Your task to perform on an android device: Go to sound settings Image 0: 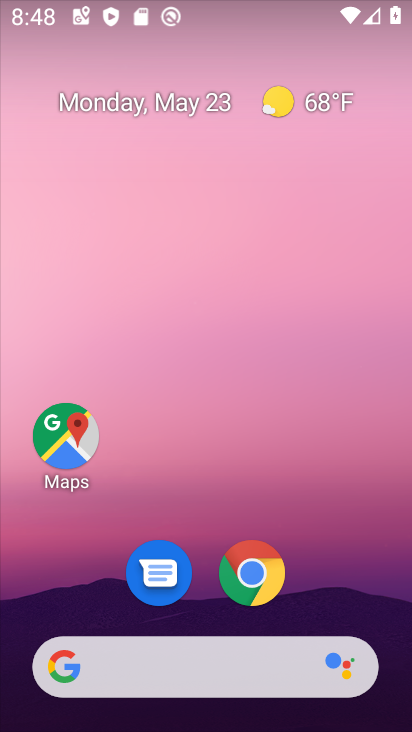
Step 0: drag from (281, 719) to (302, 358)
Your task to perform on an android device: Go to sound settings Image 1: 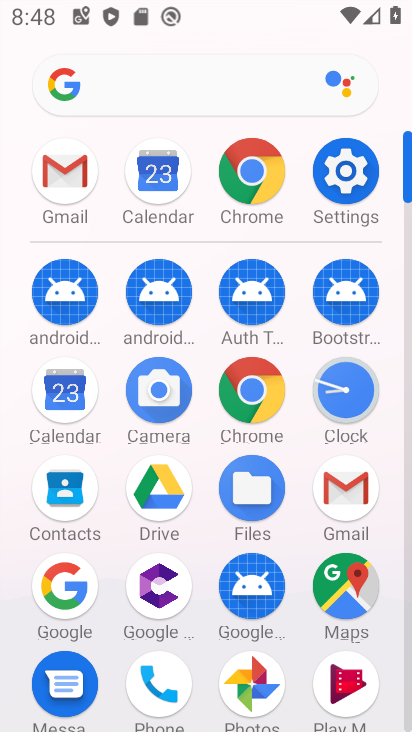
Step 1: click (353, 188)
Your task to perform on an android device: Go to sound settings Image 2: 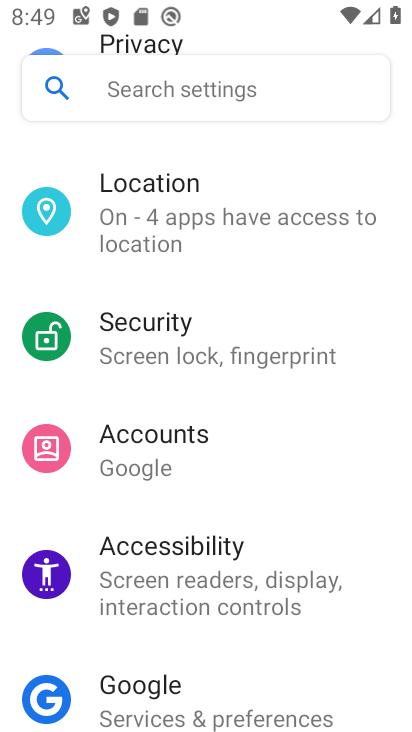
Step 2: drag from (232, 424) to (285, 208)
Your task to perform on an android device: Go to sound settings Image 3: 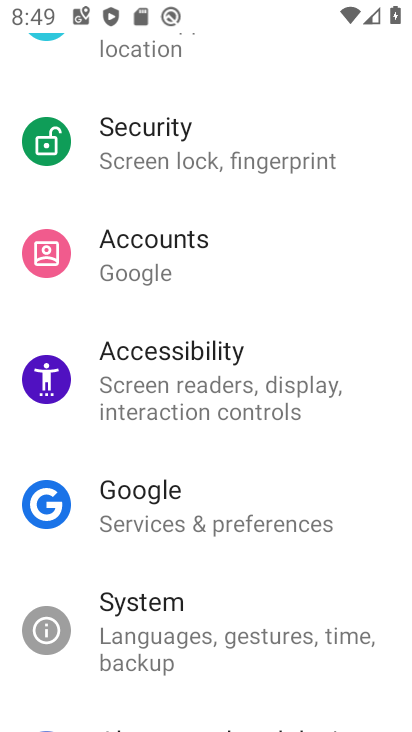
Step 3: drag from (316, 103) to (288, 696)
Your task to perform on an android device: Go to sound settings Image 4: 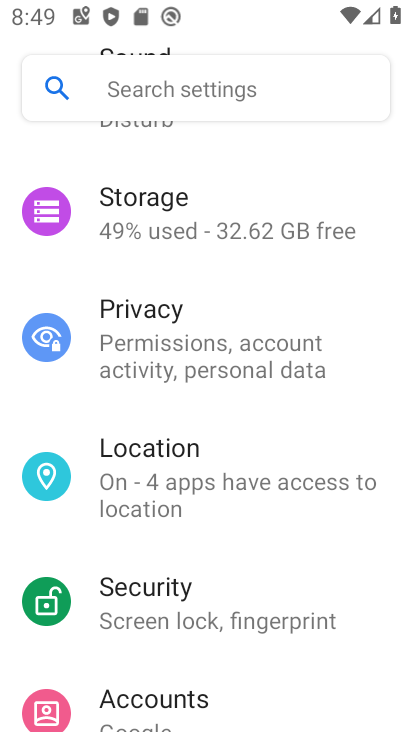
Step 4: drag from (287, 302) to (220, 697)
Your task to perform on an android device: Go to sound settings Image 5: 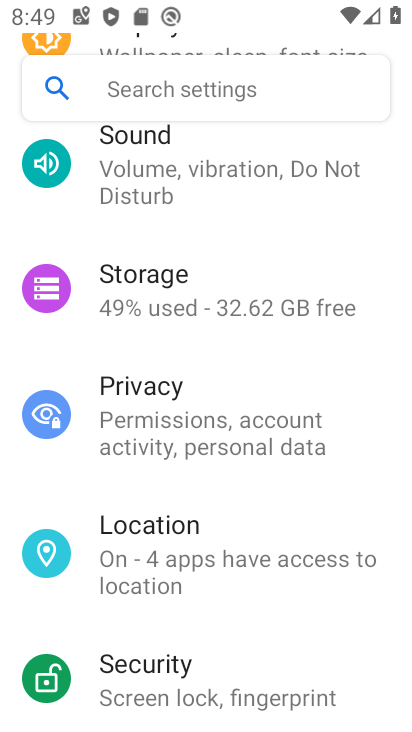
Step 5: click (274, 194)
Your task to perform on an android device: Go to sound settings Image 6: 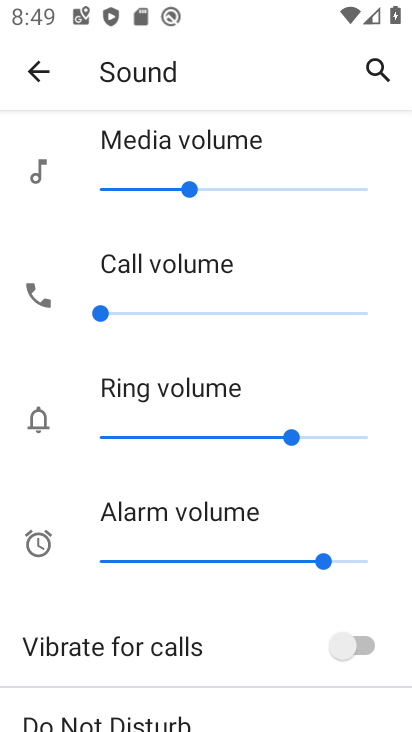
Step 6: task complete